Your task to perform on an android device: Open Chrome and go to the settings page Image 0: 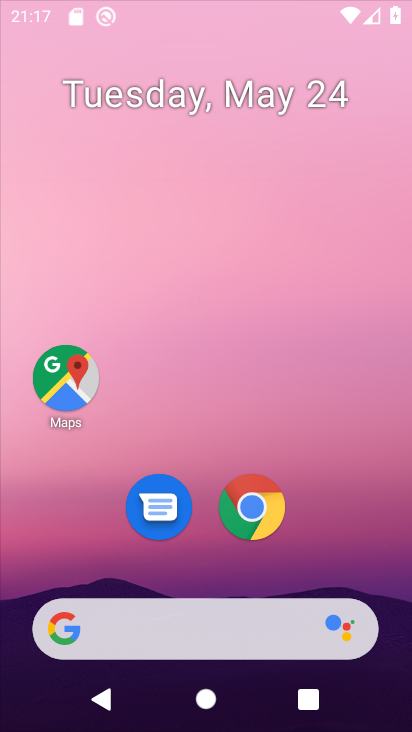
Step 0: click (248, 240)
Your task to perform on an android device: Open Chrome and go to the settings page Image 1: 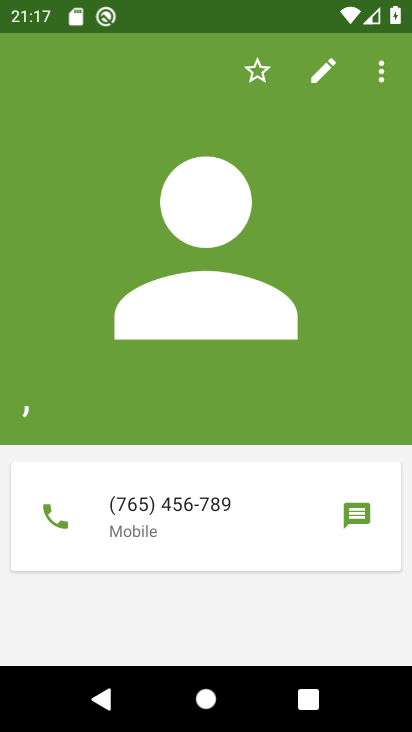
Step 1: press home button
Your task to perform on an android device: Open Chrome and go to the settings page Image 2: 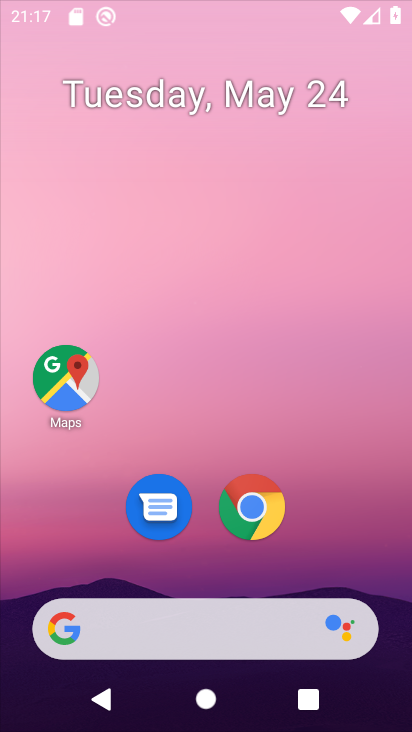
Step 2: drag from (197, 568) to (199, 166)
Your task to perform on an android device: Open Chrome and go to the settings page Image 3: 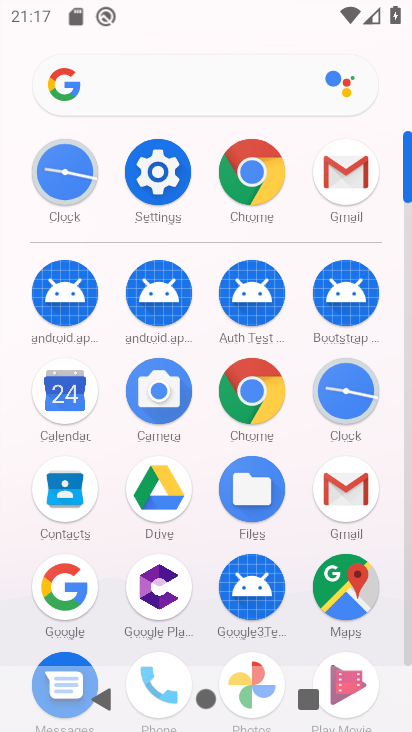
Step 3: click (249, 179)
Your task to perform on an android device: Open Chrome and go to the settings page Image 4: 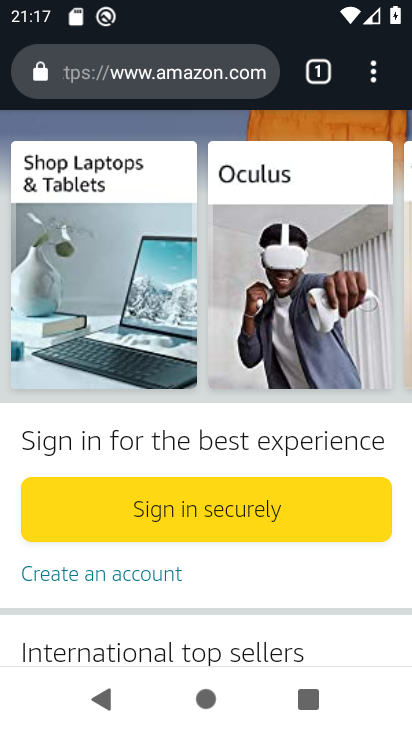
Step 4: drag from (267, 425) to (335, 120)
Your task to perform on an android device: Open Chrome and go to the settings page Image 5: 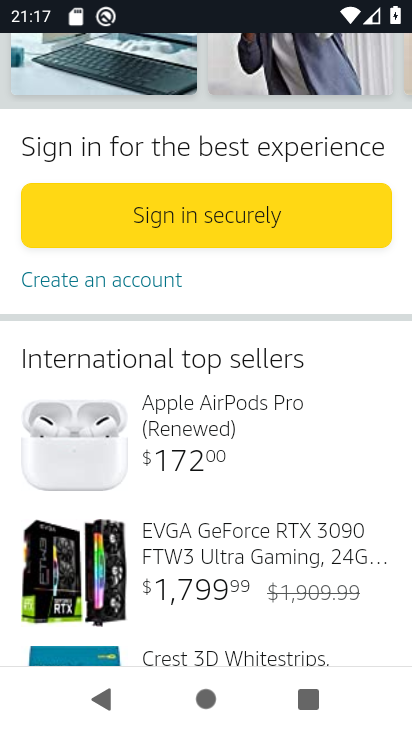
Step 5: drag from (295, 96) to (386, 631)
Your task to perform on an android device: Open Chrome and go to the settings page Image 6: 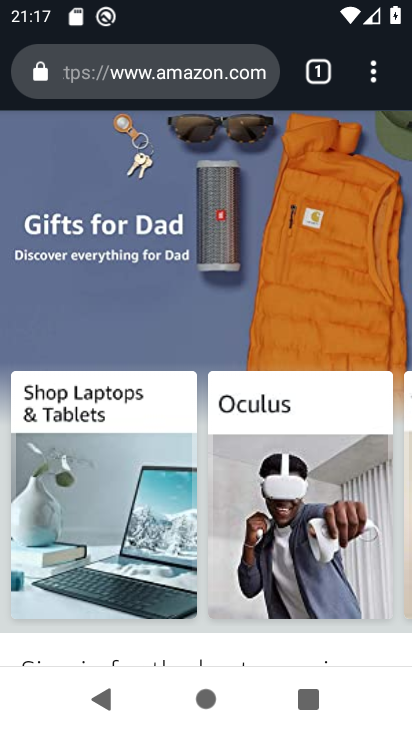
Step 6: click (383, 80)
Your task to perform on an android device: Open Chrome and go to the settings page Image 7: 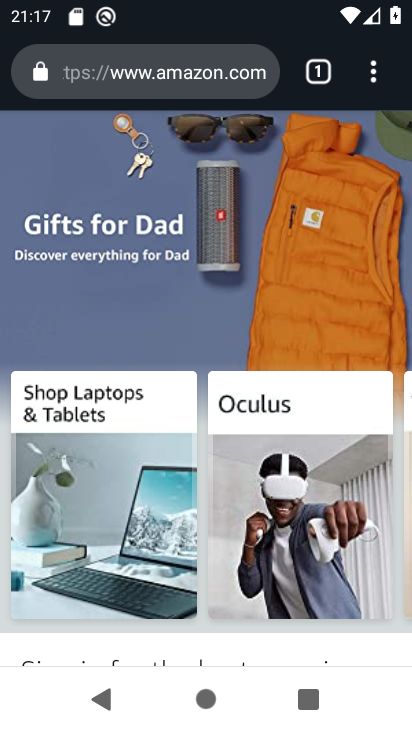
Step 7: click (374, 69)
Your task to perform on an android device: Open Chrome and go to the settings page Image 8: 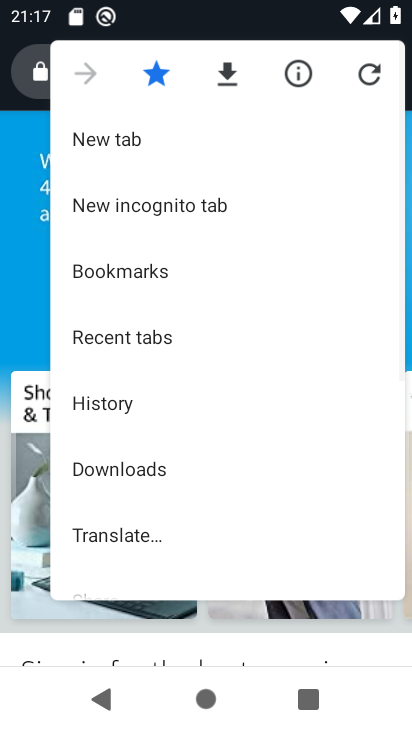
Step 8: drag from (202, 468) to (262, 123)
Your task to perform on an android device: Open Chrome and go to the settings page Image 9: 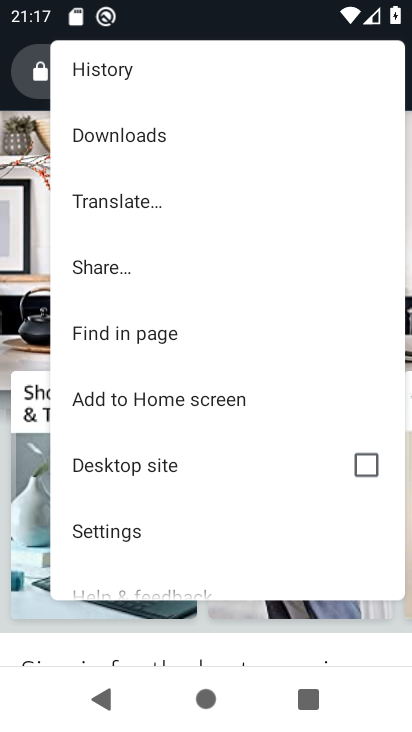
Step 9: click (128, 530)
Your task to perform on an android device: Open Chrome and go to the settings page Image 10: 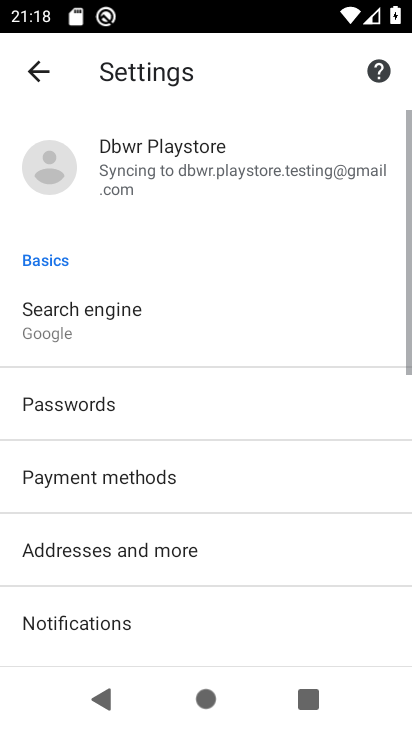
Step 10: task complete